Your task to perform on an android device: turn off location Image 0: 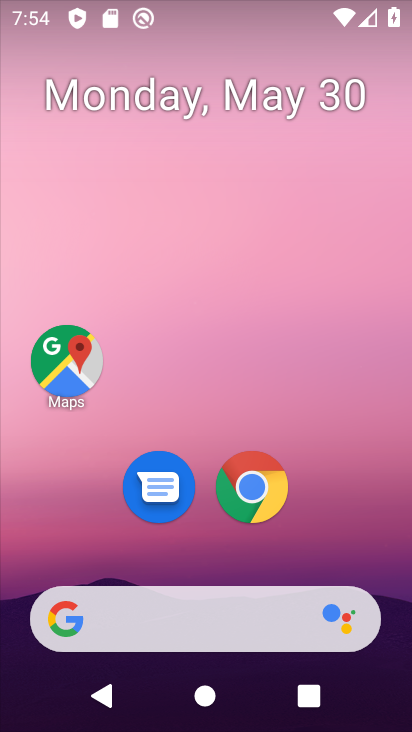
Step 0: drag from (299, 546) to (282, 145)
Your task to perform on an android device: turn off location Image 1: 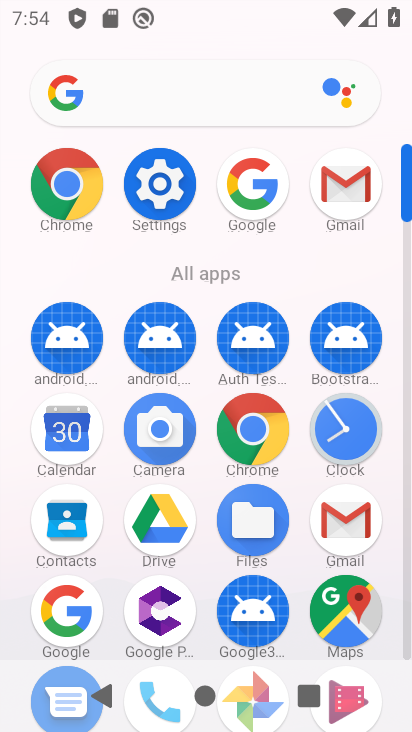
Step 1: click (148, 189)
Your task to perform on an android device: turn off location Image 2: 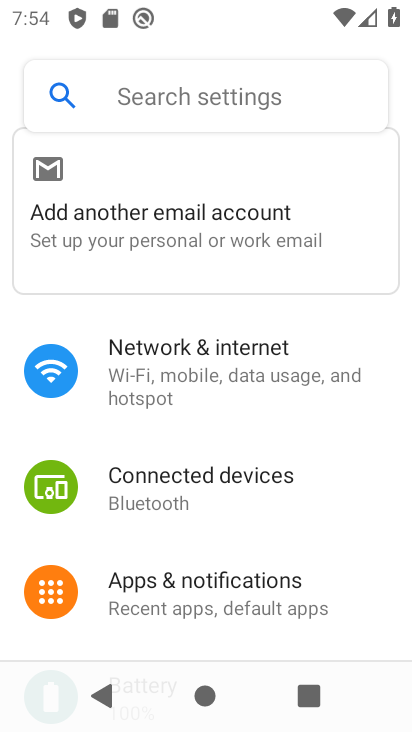
Step 2: drag from (279, 583) to (294, 394)
Your task to perform on an android device: turn off location Image 3: 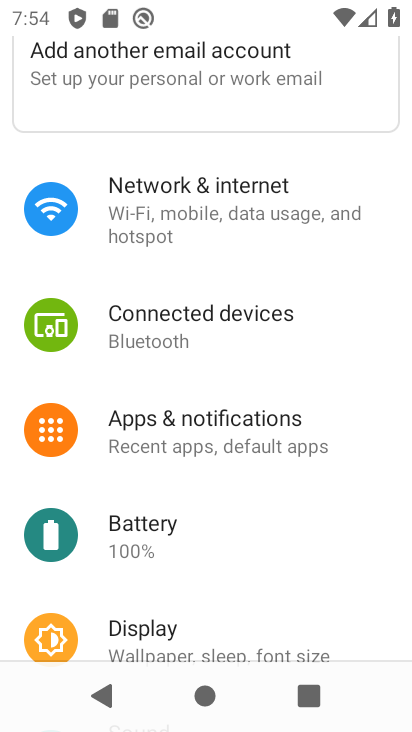
Step 3: drag from (201, 530) to (244, 292)
Your task to perform on an android device: turn off location Image 4: 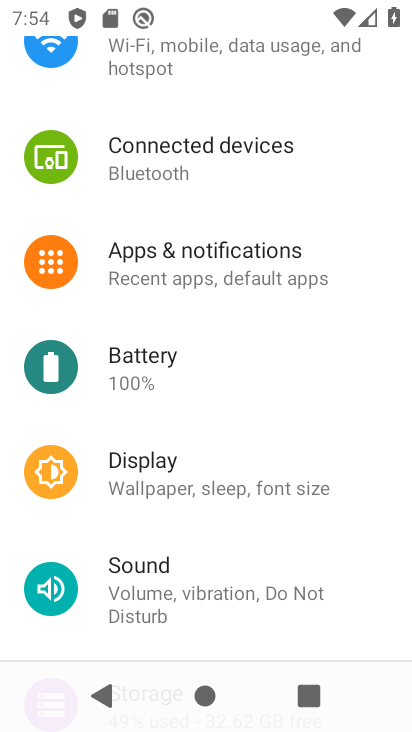
Step 4: drag from (208, 606) to (261, 284)
Your task to perform on an android device: turn off location Image 5: 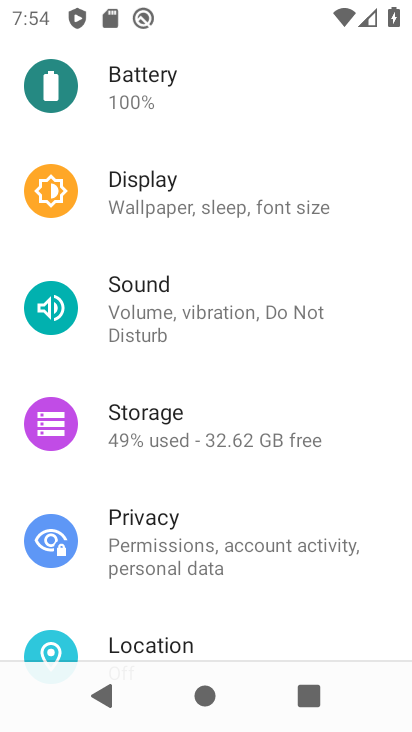
Step 5: drag from (164, 560) to (190, 386)
Your task to perform on an android device: turn off location Image 6: 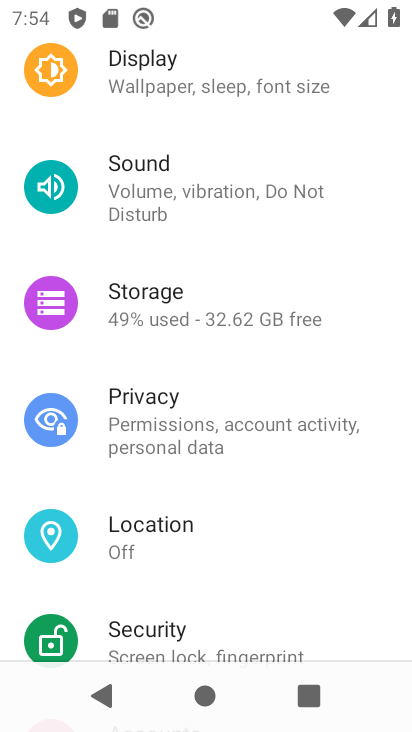
Step 6: click (151, 556)
Your task to perform on an android device: turn off location Image 7: 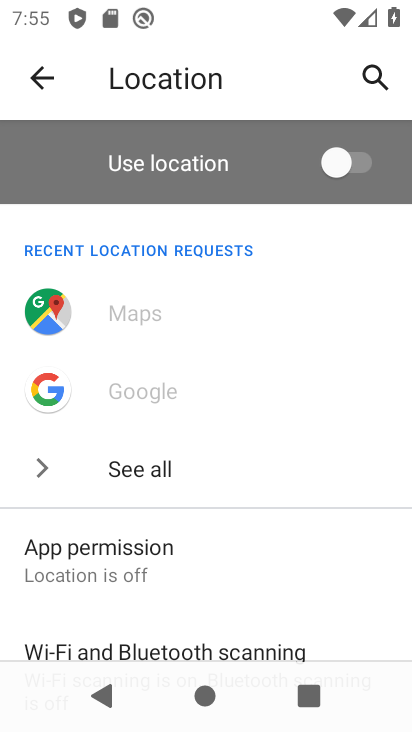
Step 7: task complete